Your task to perform on an android device: Open Yahoo.com Image 0: 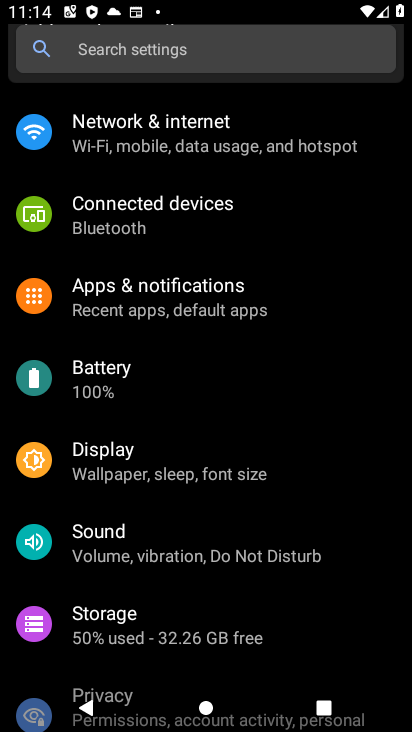
Step 0: press home button
Your task to perform on an android device: Open Yahoo.com Image 1: 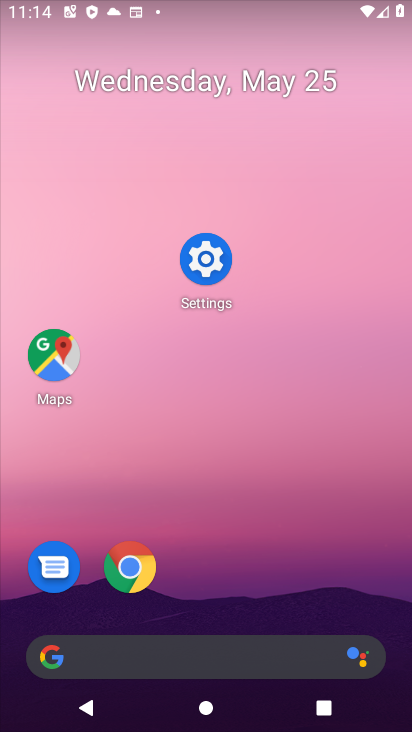
Step 1: drag from (270, 544) to (294, 57)
Your task to perform on an android device: Open Yahoo.com Image 2: 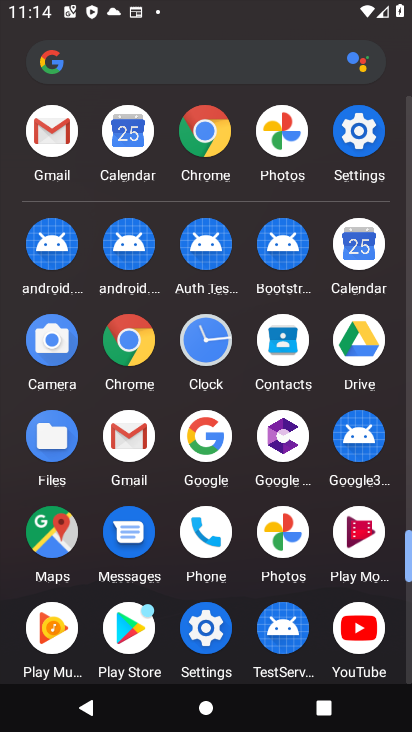
Step 2: click (209, 179)
Your task to perform on an android device: Open Yahoo.com Image 3: 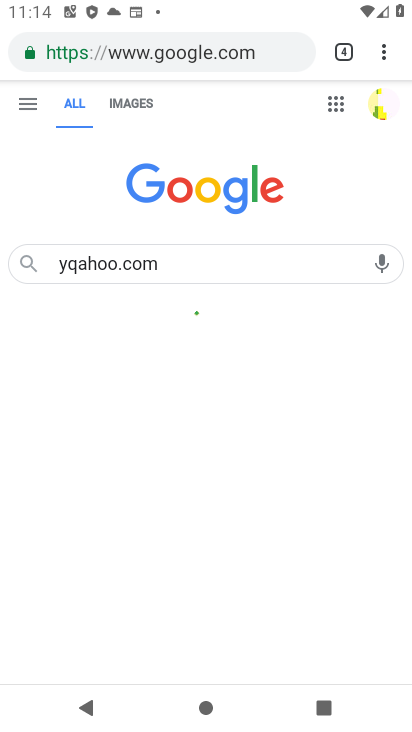
Step 3: click (190, 263)
Your task to perform on an android device: Open Yahoo.com Image 4: 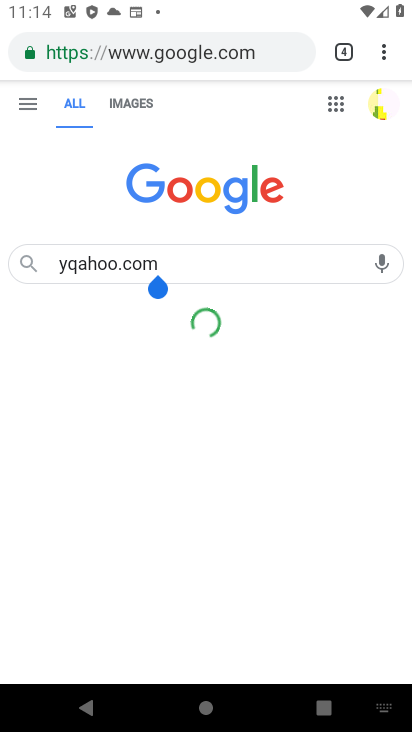
Step 4: click (223, 48)
Your task to perform on an android device: Open Yahoo.com Image 5: 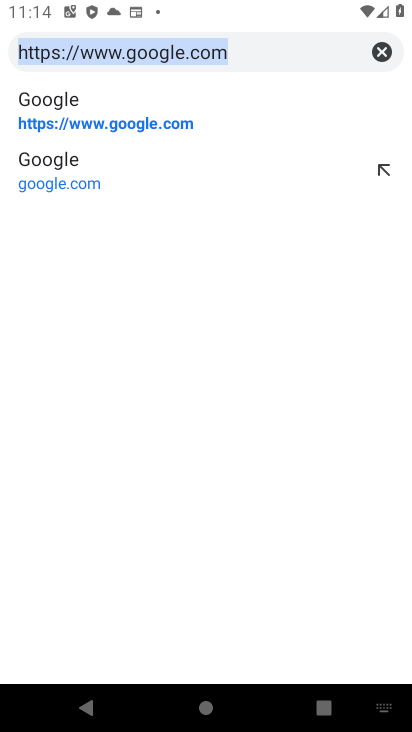
Step 5: type "yahoo.com"
Your task to perform on an android device: Open Yahoo.com Image 6: 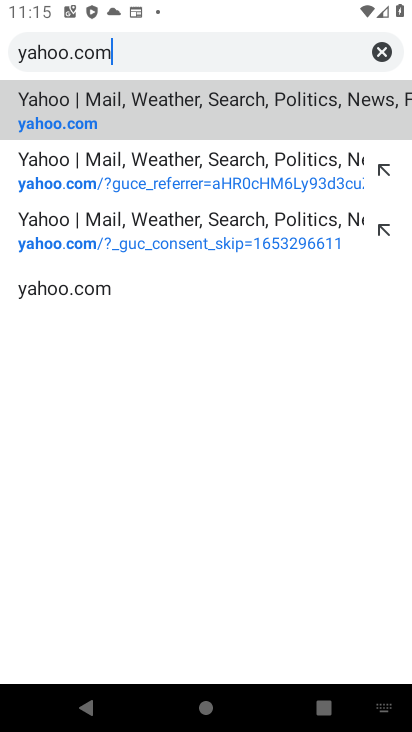
Step 6: click (166, 102)
Your task to perform on an android device: Open Yahoo.com Image 7: 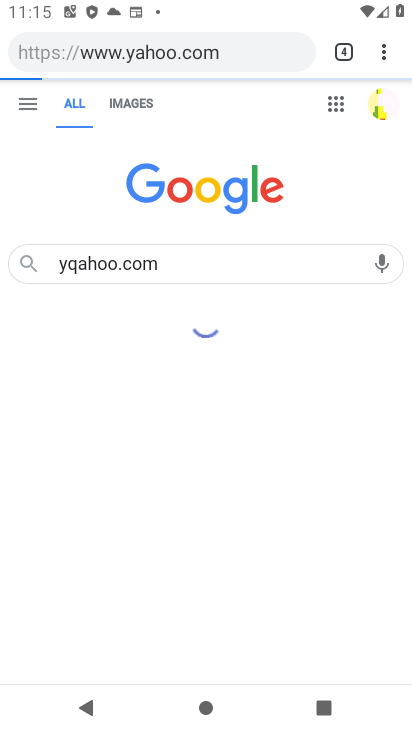
Step 7: task complete